Your task to perform on an android device: Go to internet settings Image 0: 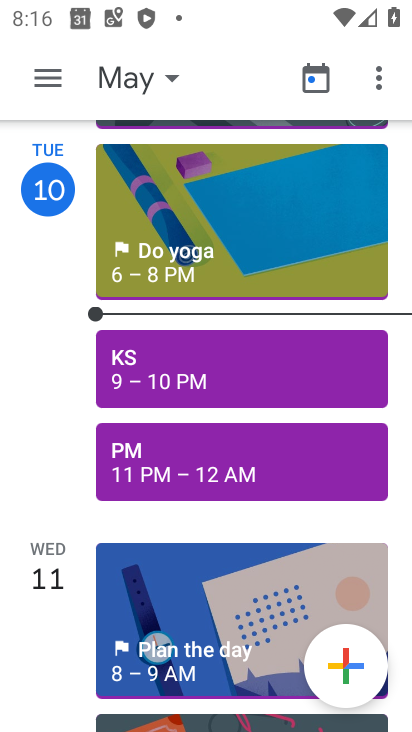
Step 0: press back button
Your task to perform on an android device: Go to internet settings Image 1: 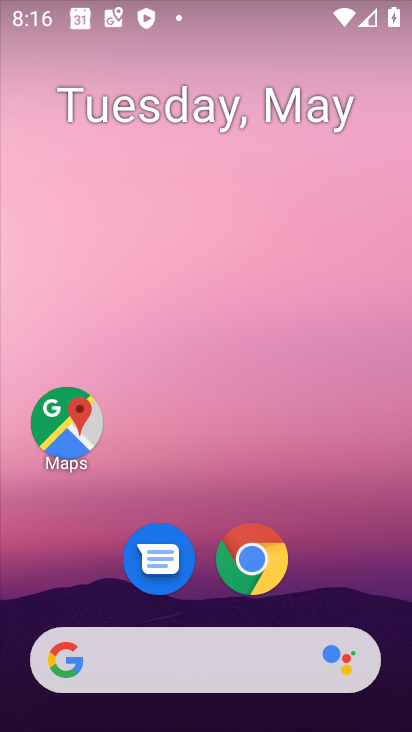
Step 1: drag from (216, 562) to (331, 165)
Your task to perform on an android device: Go to internet settings Image 2: 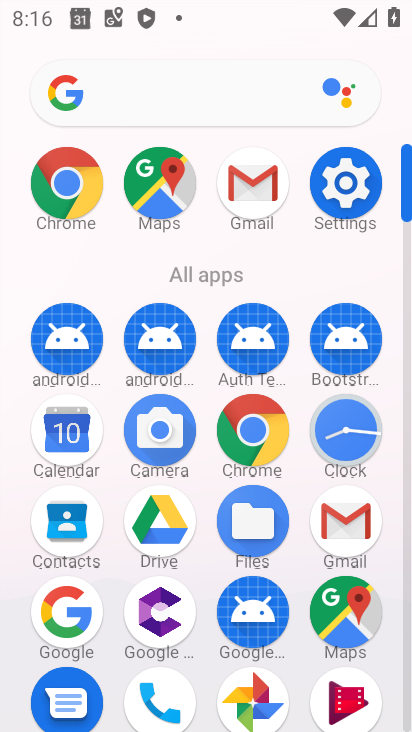
Step 2: click (348, 165)
Your task to perform on an android device: Go to internet settings Image 3: 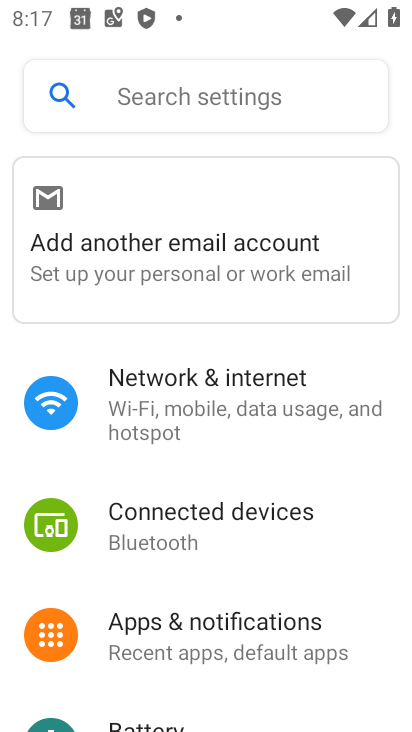
Step 3: click (214, 393)
Your task to perform on an android device: Go to internet settings Image 4: 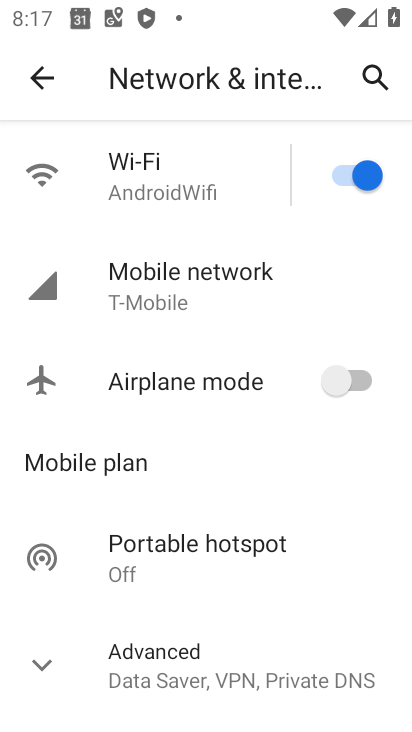
Step 4: task complete